Your task to perform on an android device: open a bookmark in the chrome app Image 0: 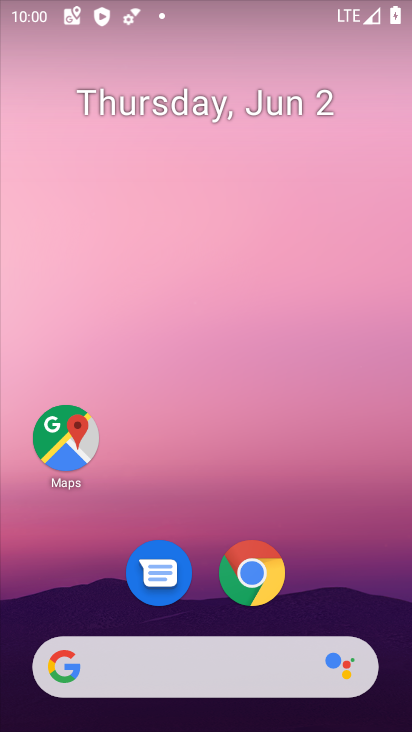
Step 0: click (267, 580)
Your task to perform on an android device: open a bookmark in the chrome app Image 1: 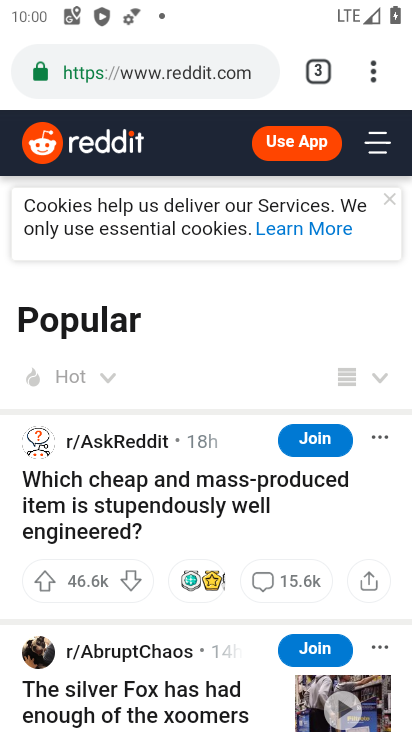
Step 1: click (375, 74)
Your task to perform on an android device: open a bookmark in the chrome app Image 2: 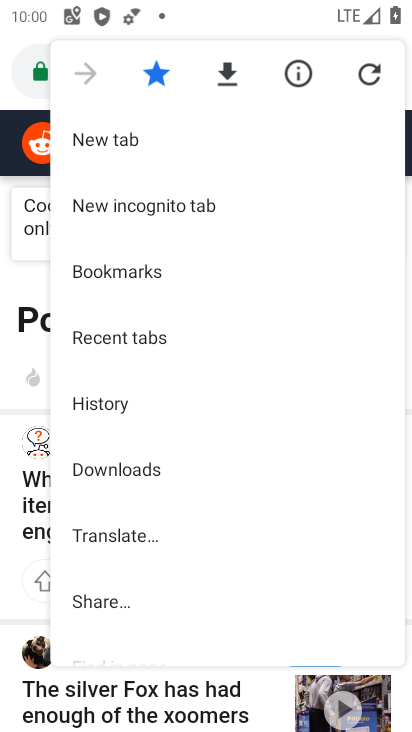
Step 2: click (138, 280)
Your task to perform on an android device: open a bookmark in the chrome app Image 3: 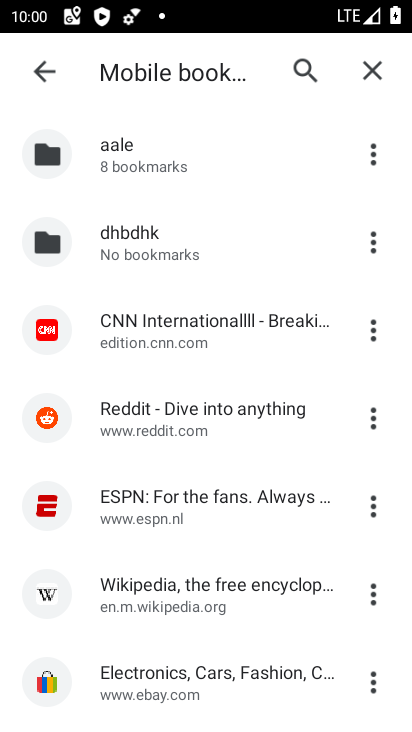
Step 3: click (182, 420)
Your task to perform on an android device: open a bookmark in the chrome app Image 4: 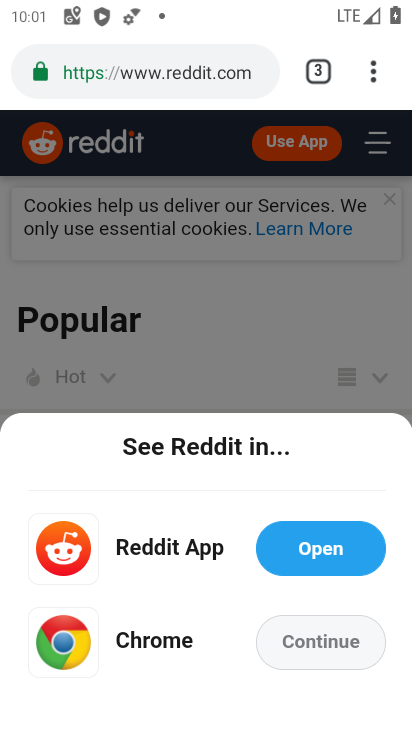
Step 4: click (308, 647)
Your task to perform on an android device: open a bookmark in the chrome app Image 5: 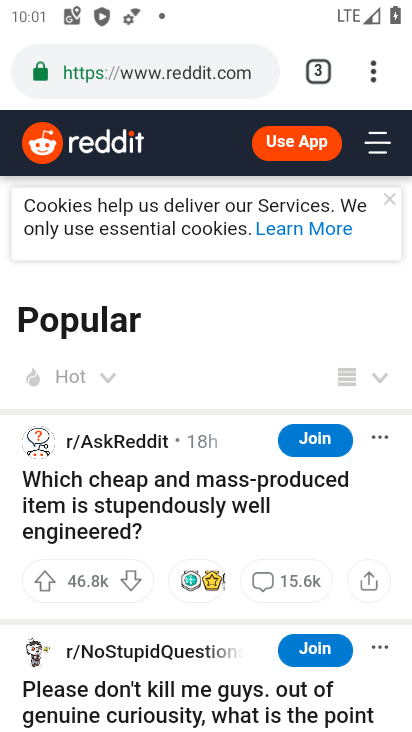
Step 5: task complete